Your task to perform on an android device: Clear the shopping cart on amazon.com. Image 0: 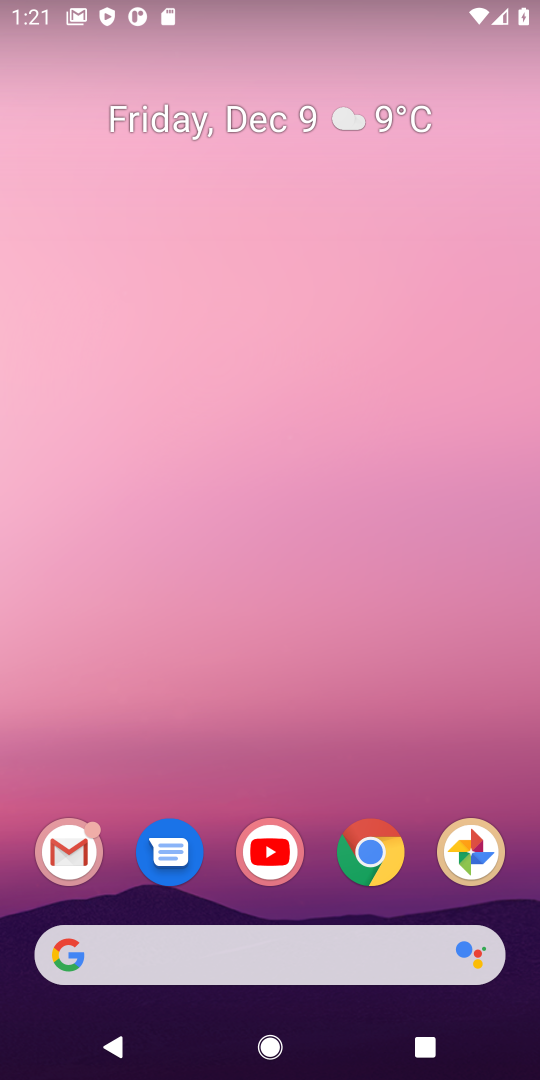
Step 0: click (378, 869)
Your task to perform on an android device: Clear the shopping cart on amazon.com. Image 1: 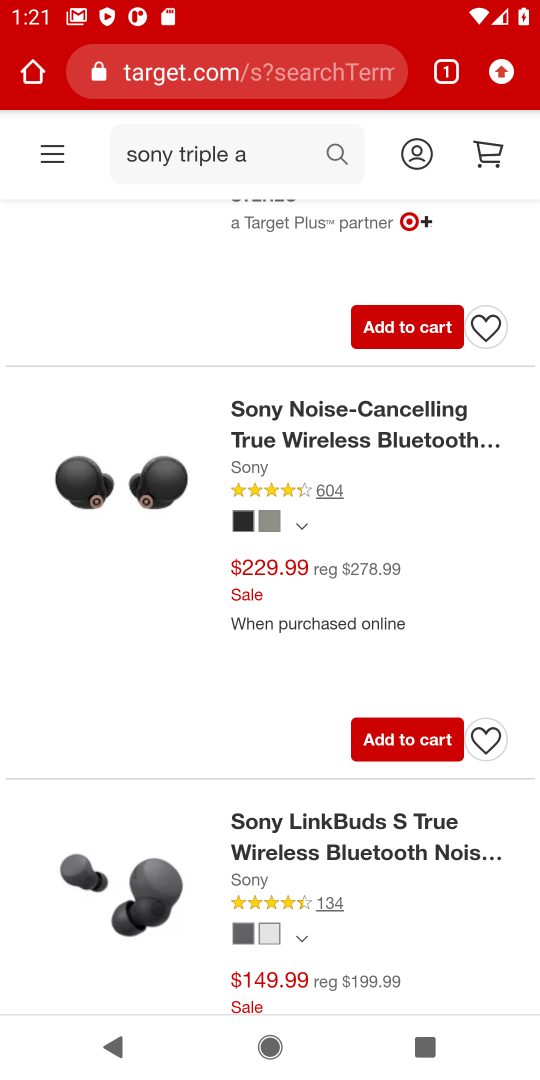
Step 1: click (184, 73)
Your task to perform on an android device: Clear the shopping cart on amazon.com. Image 2: 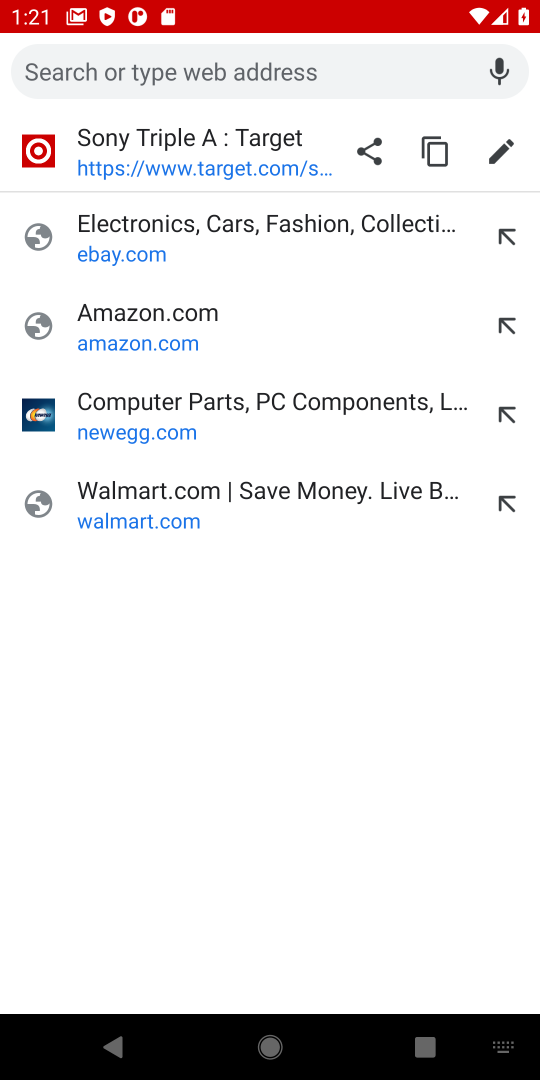
Step 2: type "amazon.com"
Your task to perform on an android device: Clear the shopping cart on amazon.com. Image 3: 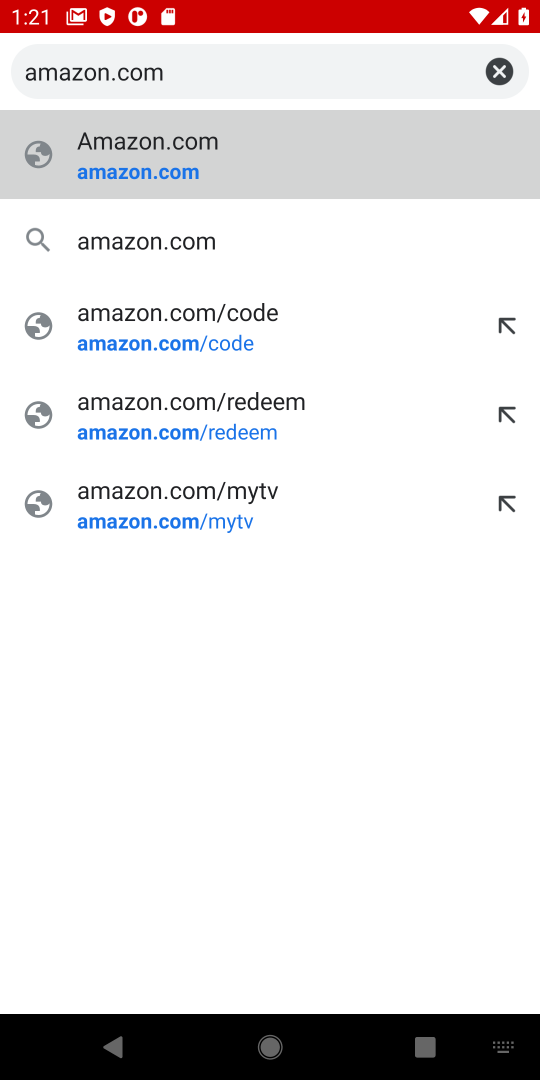
Step 3: press enter
Your task to perform on an android device: Clear the shopping cart on amazon.com. Image 4: 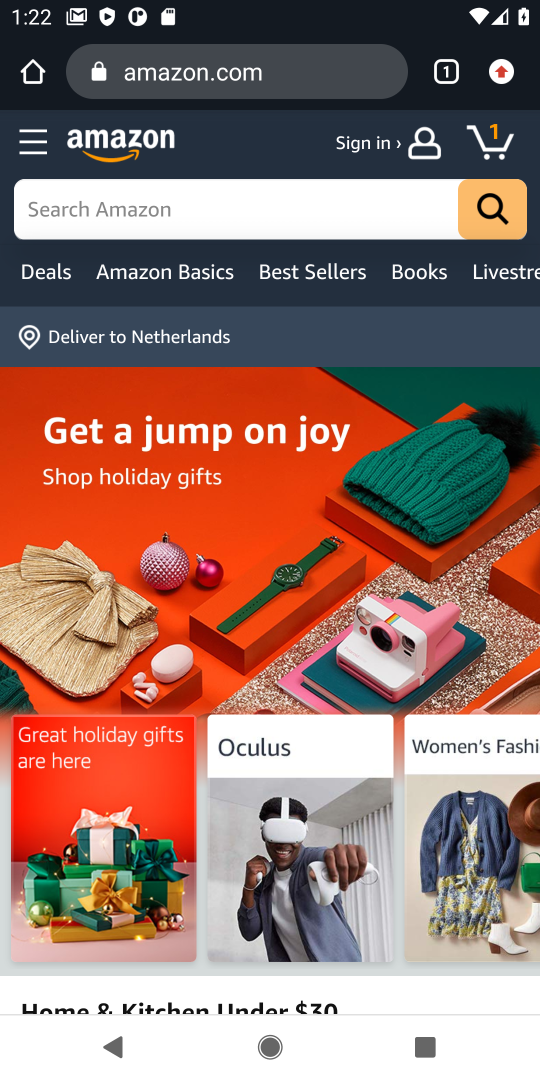
Step 4: click (495, 151)
Your task to perform on an android device: Clear the shopping cart on amazon.com. Image 5: 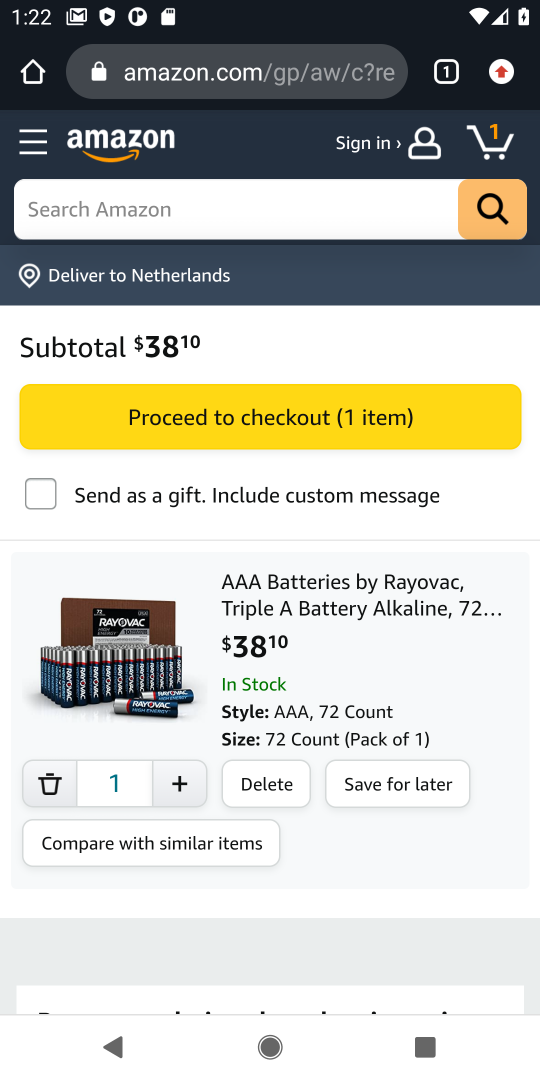
Step 5: click (48, 794)
Your task to perform on an android device: Clear the shopping cart on amazon.com. Image 6: 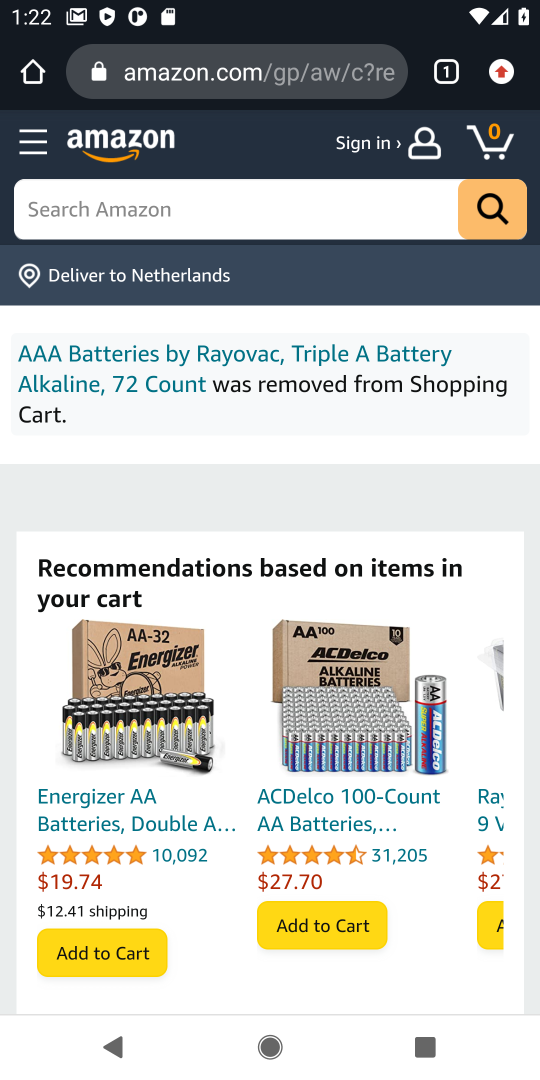
Step 6: task complete